Your task to perform on an android device: read, delete, or share a saved page in the chrome app Image 0: 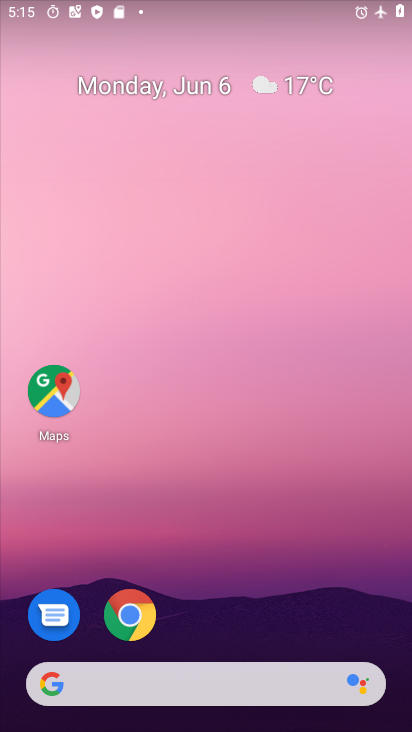
Step 0: drag from (303, 543) to (237, 13)
Your task to perform on an android device: read, delete, or share a saved page in the chrome app Image 1: 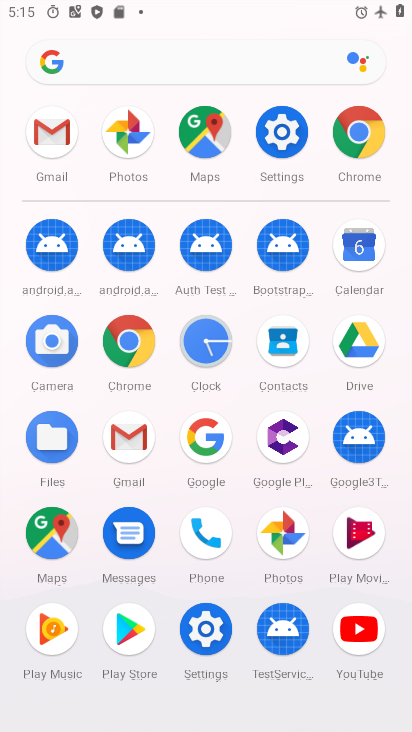
Step 1: drag from (6, 510) to (23, 185)
Your task to perform on an android device: read, delete, or share a saved page in the chrome app Image 2: 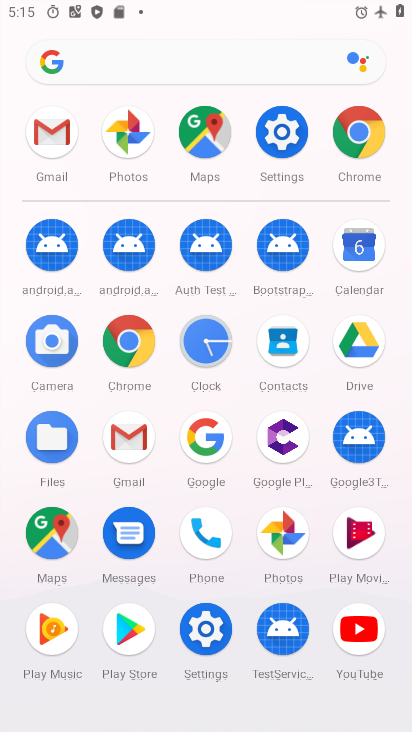
Step 2: click (126, 337)
Your task to perform on an android device: read, delete, or share a saved page in the chrome app Image 3: 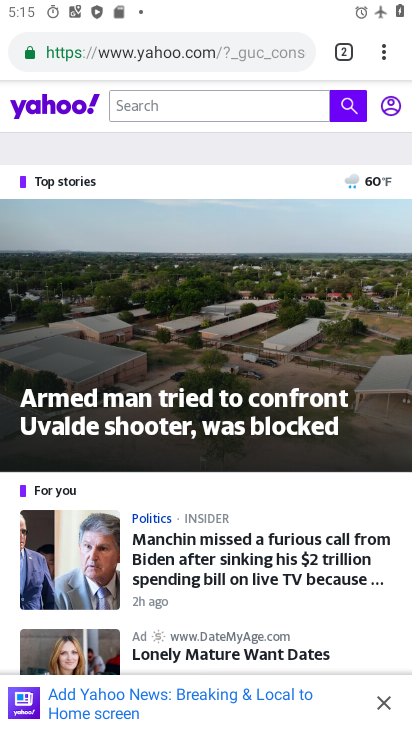
Step 3: task complete